Your task to perform on an android device: Search for Italian restaurants on Maps Image 0: 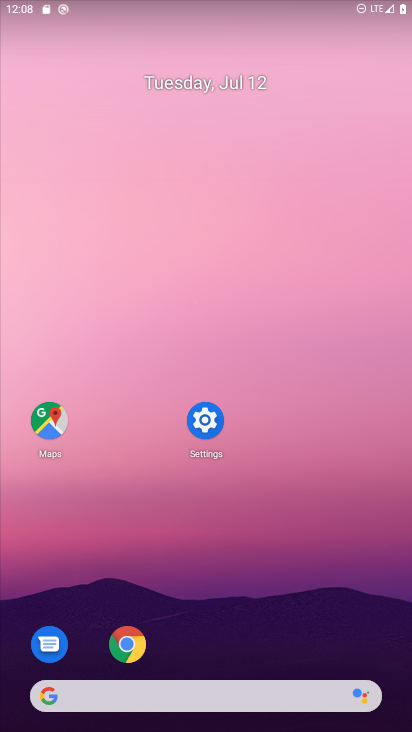
Step 0: click (42, 408)
Your task to perform on an android device: Search for Italian restaurants on Maps Image 1: 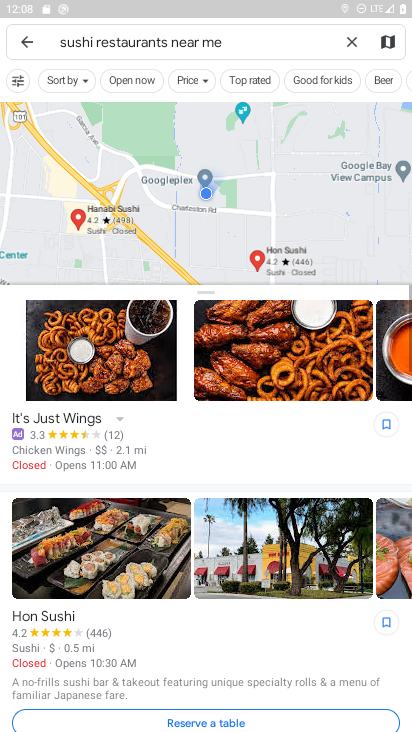
Step 1: click (231, 50)
Your task to perform on an android device: Search for Italian restaurants on Maps Image 2: 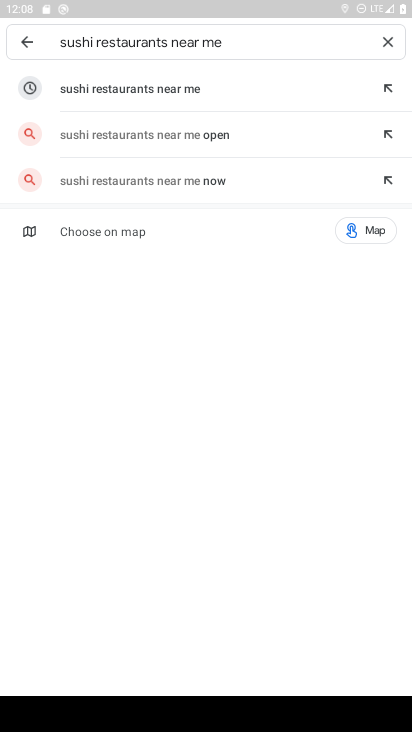
Step 2: click (386, 44)
Your task to perform on an android device: Search for Italian restaurants on Maps Image 3: 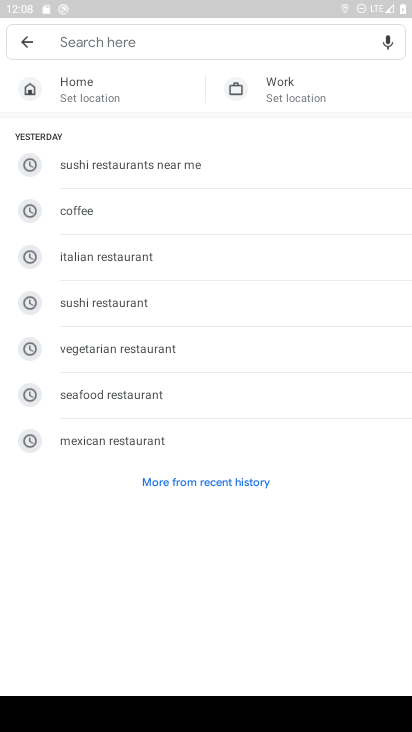
Step 3: type "Italian restaurants"
Your task to perform on an android device: Search for Italian restaurants on Maps Image 4: 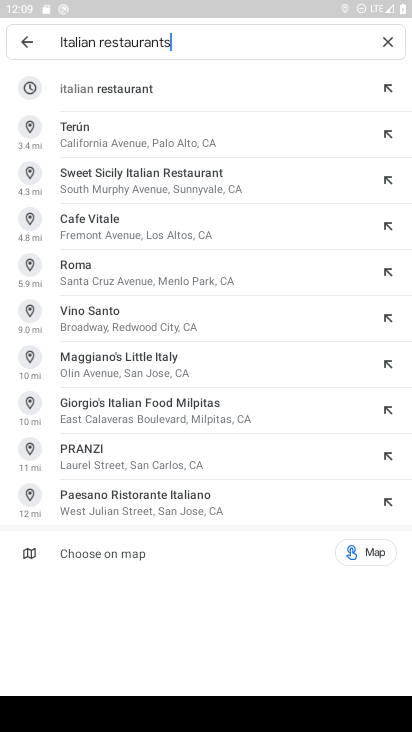
Step 4: click (102, 92)
Your task to perform on an android device: Search for Italian restaurants on Maps Image 5: 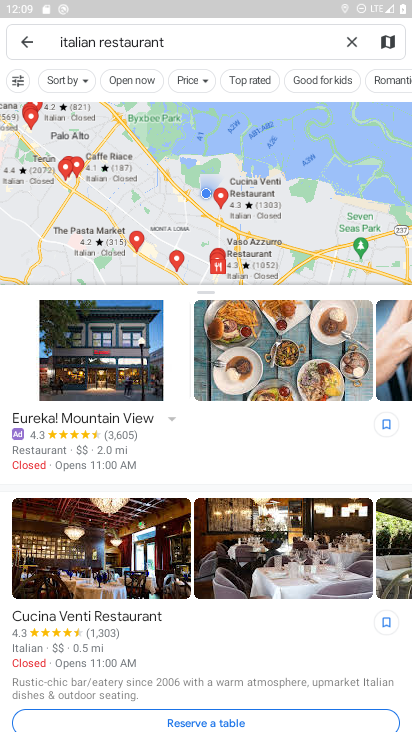
Step 5: task complete